Your task to perform on an android device: Open Android settings Image 0: 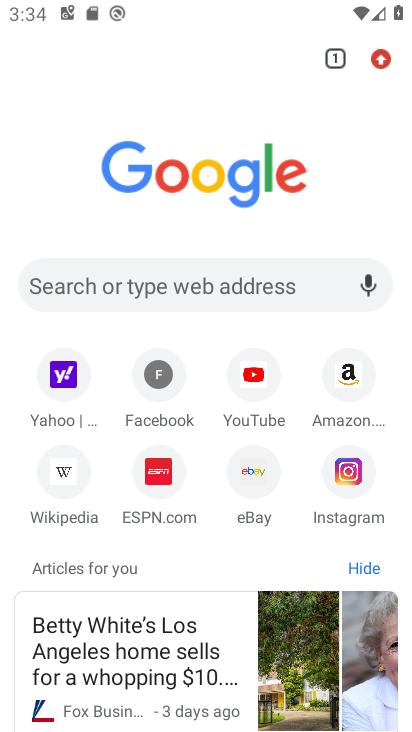
Step 0: press back button
Your task to perform on an android device: Open Android settings Image 1: 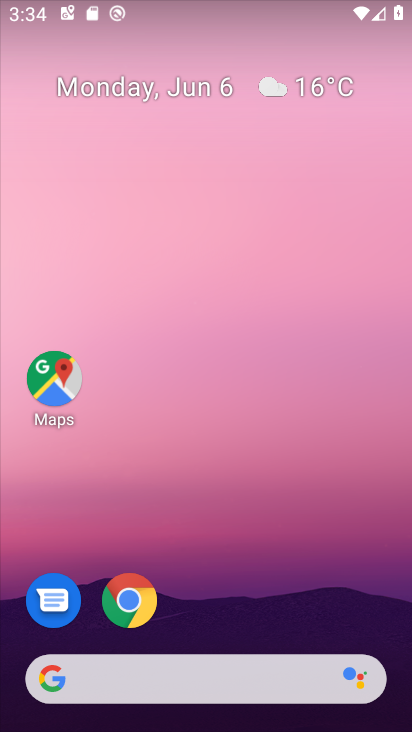
Step 1: drag from (254, 379) to (285, 62)
Your task to perform on an android device: Open Android settings Image 2: 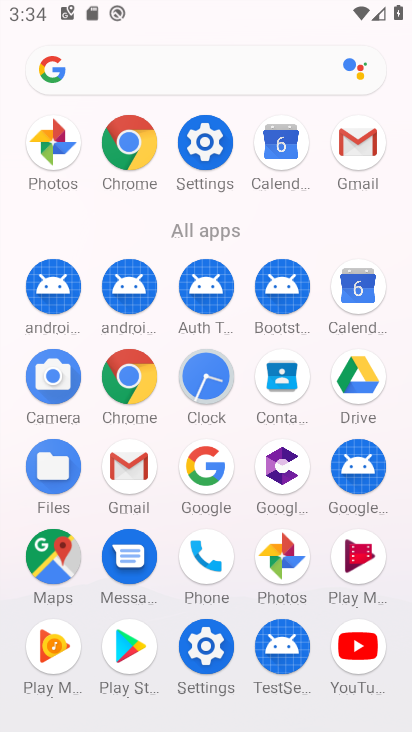
Step 2: click (198, 138)
Your task to perform on an android device: Open Android settings Image 3: 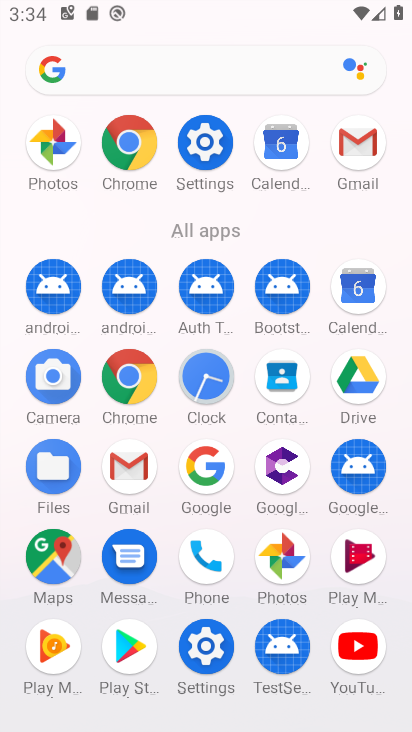
Step 3: click (198, 138)
Your task to perform on an android device: Open Android settings Image 4: 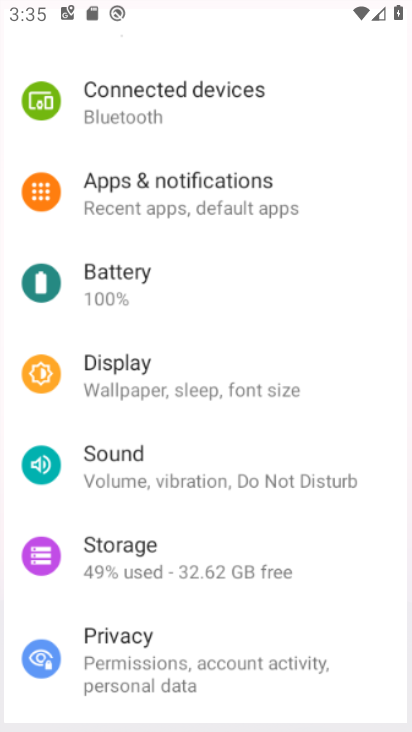
Step 4: click (199, 138)
Your task to perform on an android device: Open Android settings Image 5: 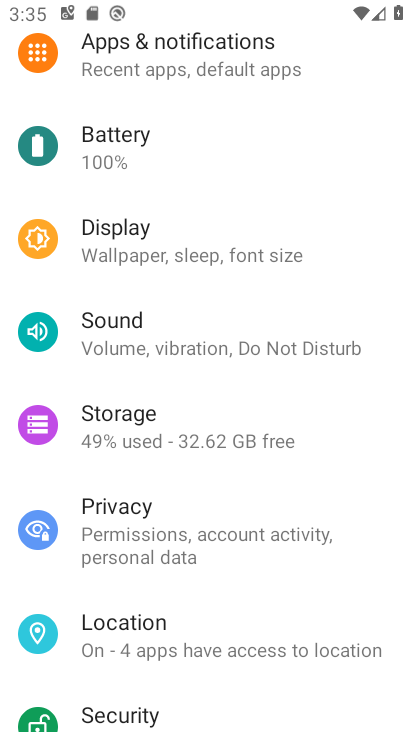
Step 5: drag from (167, 574) to (236, 149)
Your task to perform on an android device: Open Android settings Image 6: 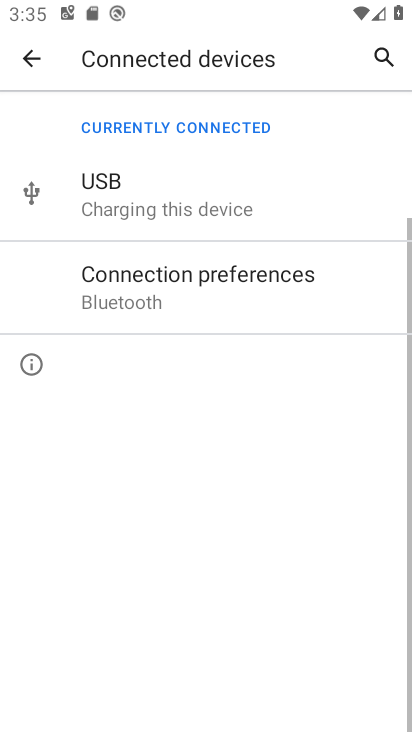
Step 6: drag from (232, 505) to (254, 254)
Your task to perform on an android device: Open Android settings Image 7: 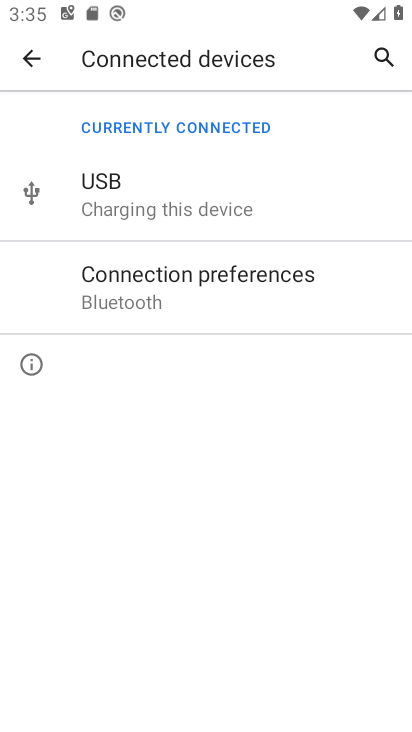
Step 7: click (25, 62)
Your task to perform on an android device: Open Android settings Image 8: 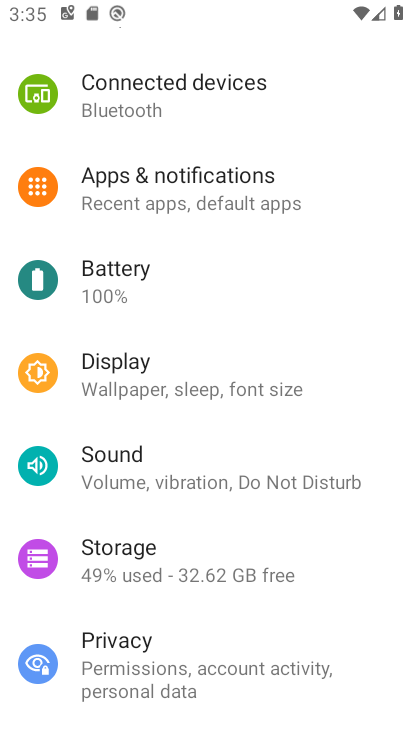
Step 8: drag from (200, 619) to (175, 109)
Your task to perform on an android device: Open Android settings Image 9: 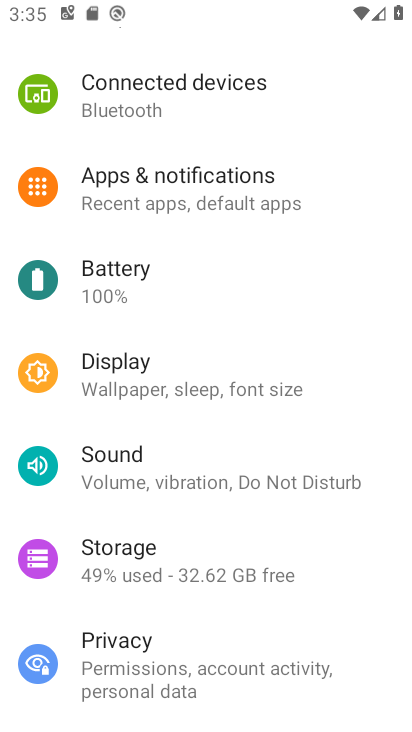
Step 9: drag from (229, 545) to (276, 173)
Your task to perform on an android device: Open Android settings Image 10: 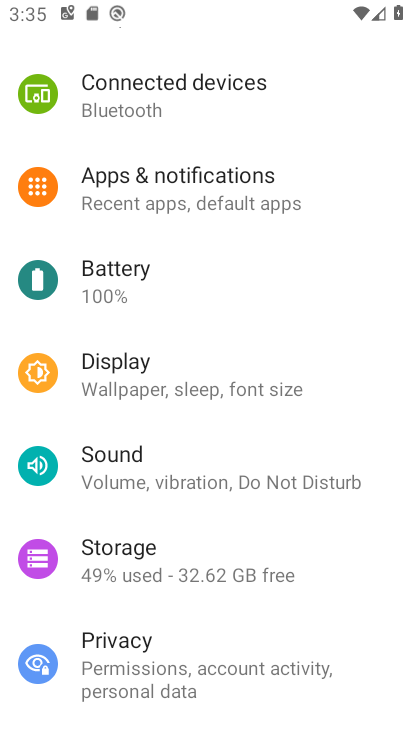
Step 10: drag from (193, 670) to (276, 179)
Your task to perform on an android device: Open Android settings Image 11: 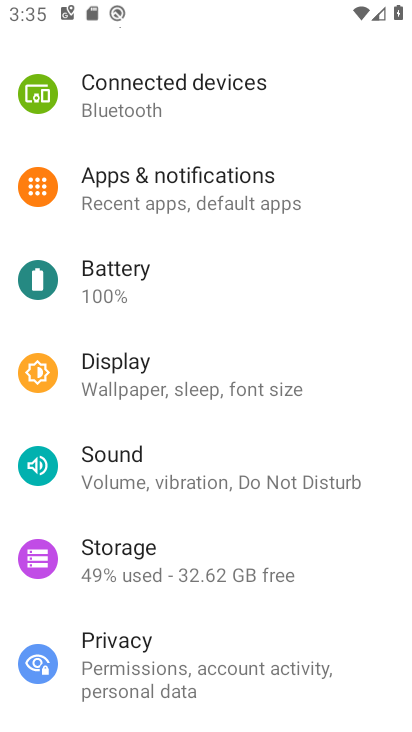
Step 11: drag from (279, 570) to (193, 184)
Your task to perform on an android device: Open Android settings Image 12: 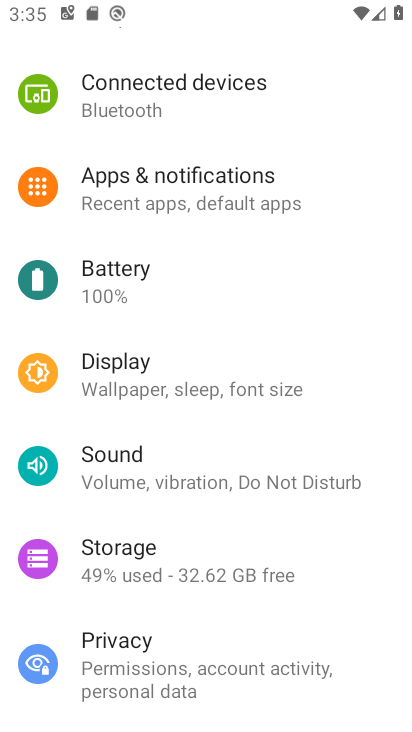
Step 12: drag from (169, 620) to (172, 291)
Your task to perform on an android device: Open Android settings Image 13: 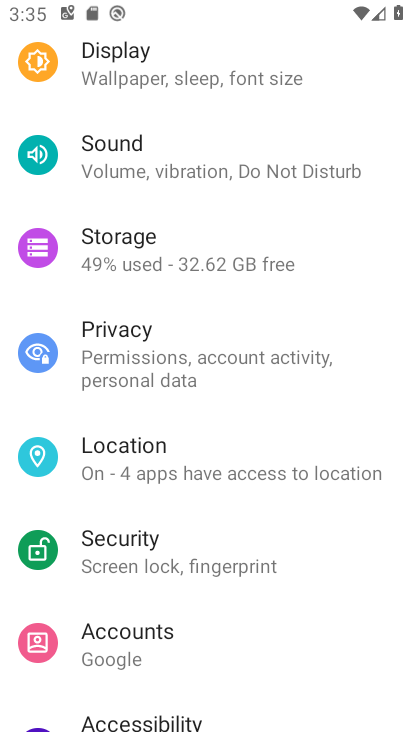
Step 13: drag from (211, 639) to (198, 209)
Your task to perform on an android device: Open Android settings Image 14: 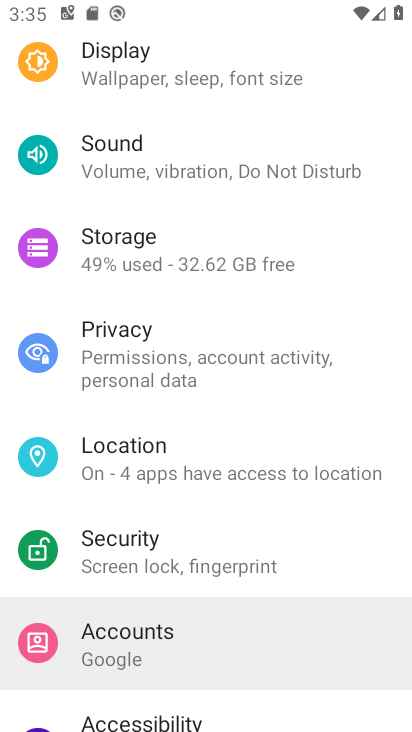
Step 14: drag from (156, 594) to (228, 229)
Your task to perform on an android device: Open Android settings Image 15: 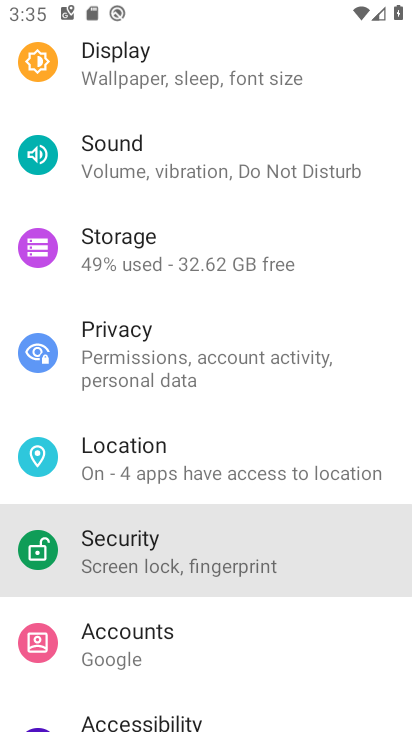
Step 15: drag from (249, 645) to (258, 239)
Your task to perform on an android device: Open Android settings Image 16: 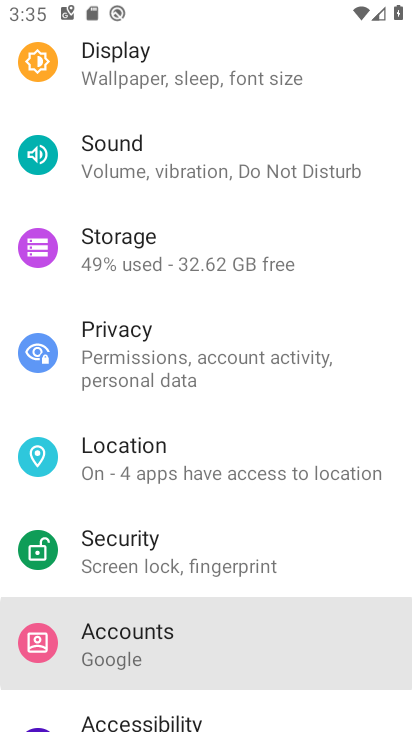
Step 16: drag from (184, 522) to (302, 130)
Your task to perform on an android device: Open Android settings Image 17: 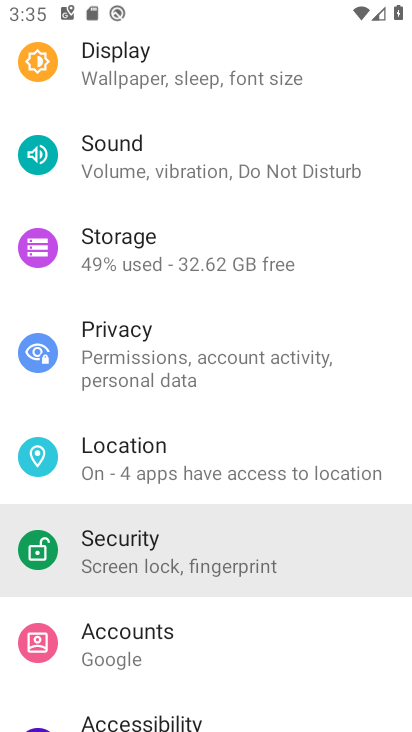
Step 17: drag from (190, 681) to (229, 225)
Your task to perform on an android device: Open Android settings Image 18: 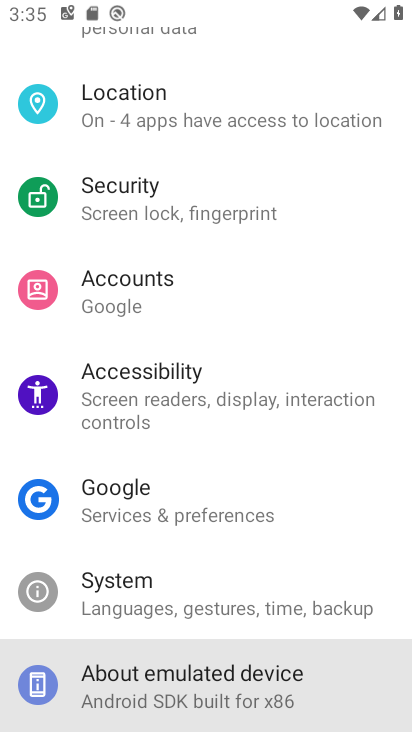
Step 18: drag from (257, 667) to (253, 154)
Your task to perform on an android device: Open Android settings Image 19: 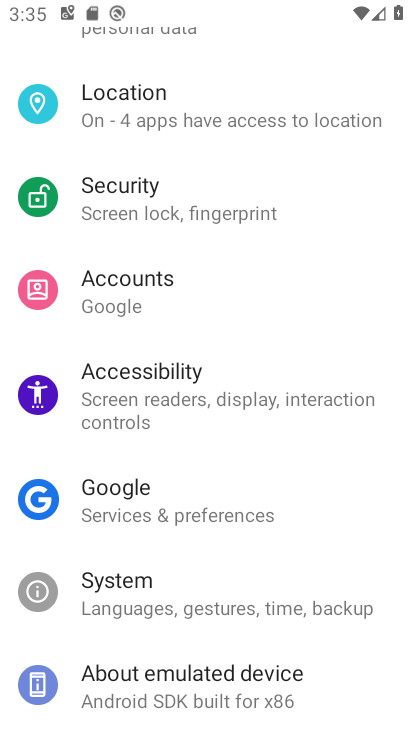
Step 19: click (150, 692)
Your task to perform on an android device: Open Android settings Image 20: 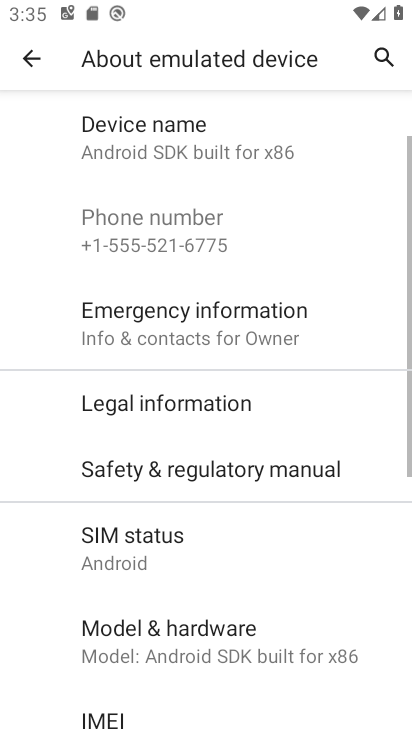
Step 20: task complete